Your task to perform on an android device: turn off improve location accuracy Image 0: 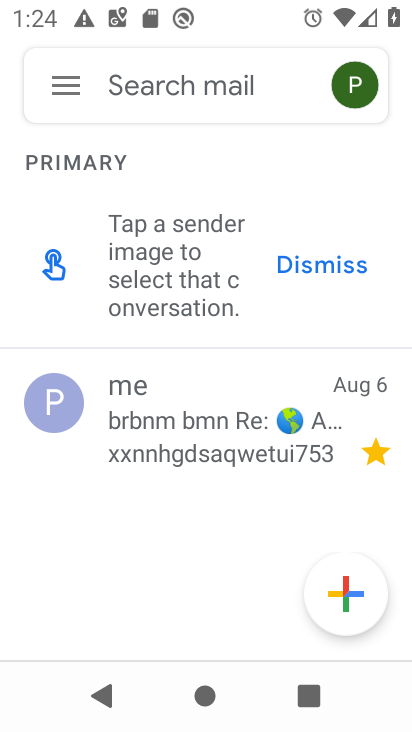
Step 0: press back button
Your task to perform on an android device: turn off improve location accuracy Image 1: 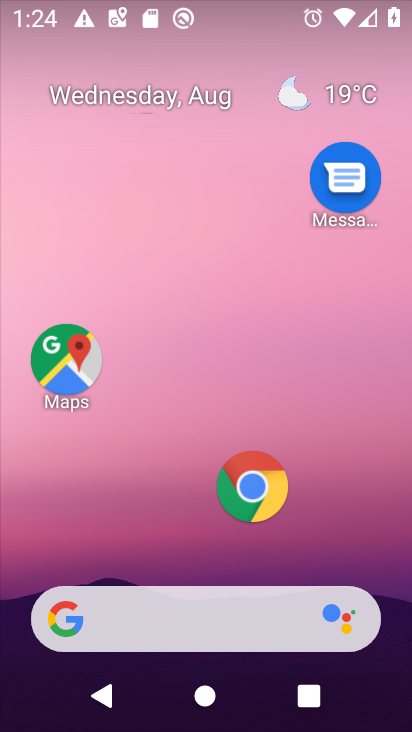
Step 1: drag from (114, 541) to (158, 25)
Your task to perform on an android device: turn off improve location accuracy Image 2: 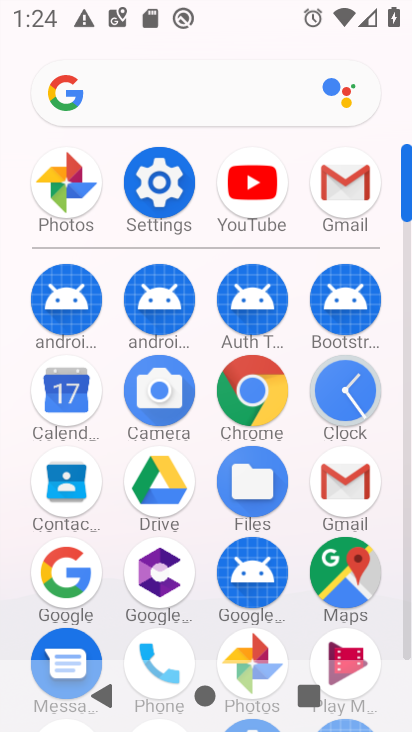
Step 2: click (172, 178)
Your task to perform on an android device: turn off improve location accuracy Image 3: 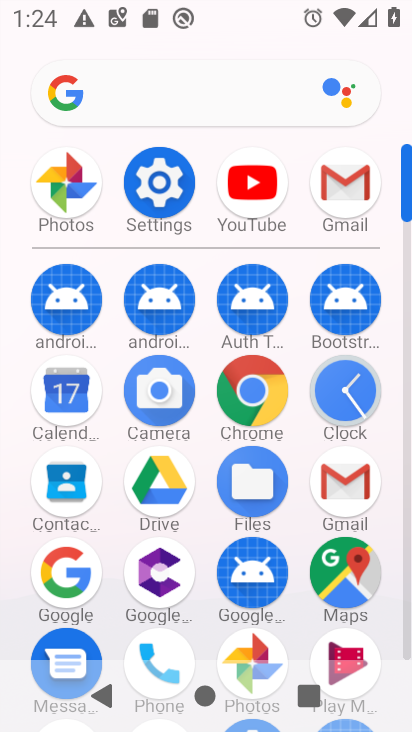
Step 3: click (166, 199)
Your task to perform on an android device: turn off improve location accuracy Image 4: 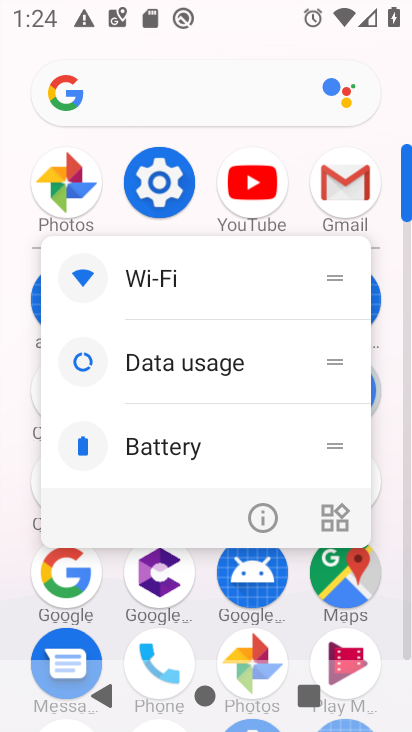
Step 4: click (160, 181)
Your task to perform on an android device: turn off improve location accuracy Image 5: 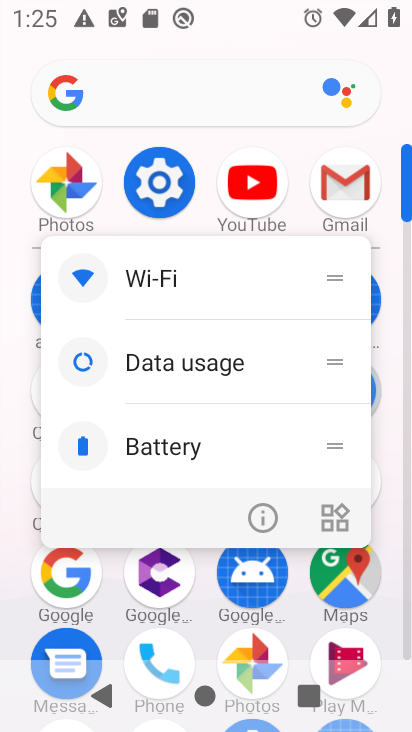
Step 5: click (168, 165)
Your task to perform on an android device: turn off improve location accuracy Image 6: 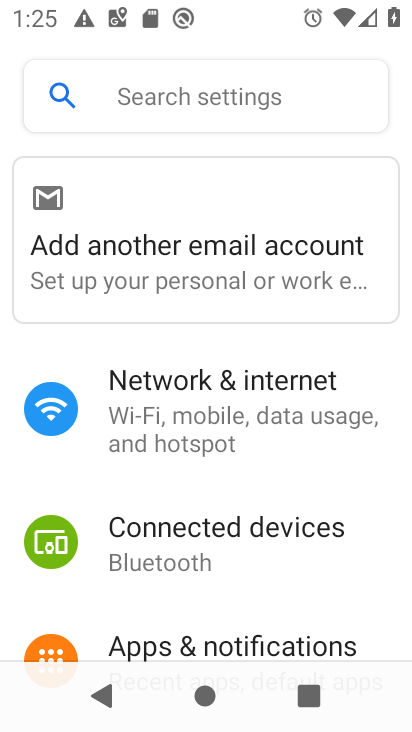
Step 6: drag from (198, 585) to (306, 134)
Your task to perform on an android device: turn off improve location accuracy Image 7: 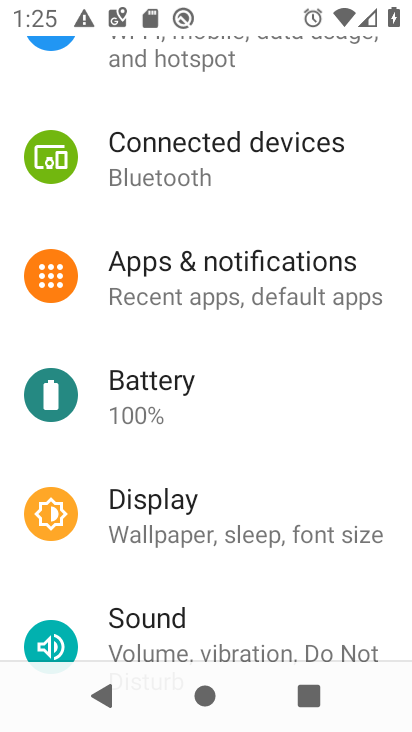
Step 7: drag from (204, 594) to (295, 106)
Your task to perform on an android device: turn off improve location accuracy Image 8: 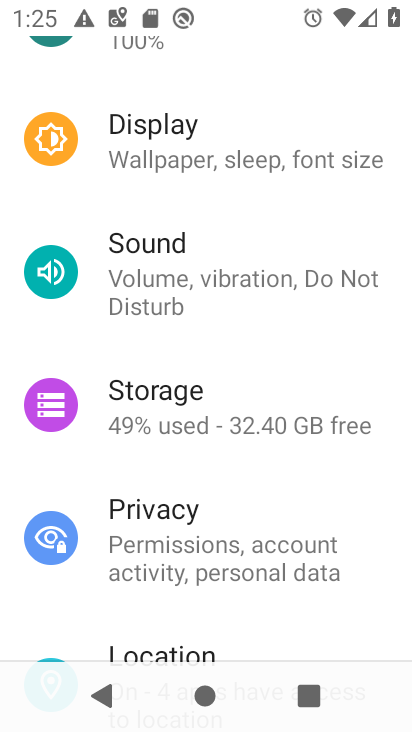
Step 8: click (151, 652)
Your task to perform on an android device: turn off improve location accuracy Image 9: 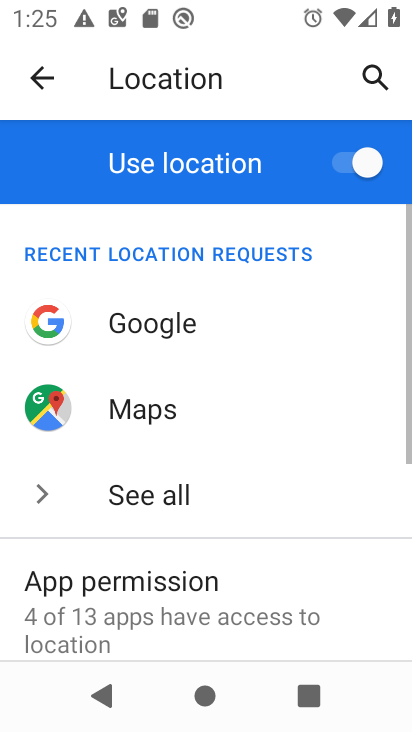
Step 9: drag from (156, 597) to (234, 102)
Your task to perform on an android device: turn off improve location accuracy Image 10: 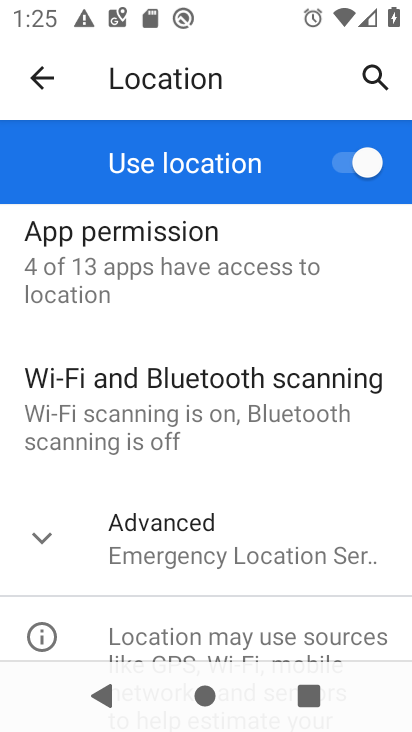
Step 10: click (231, 561)
Your task to perform on an android device: turn off improve location accuracy Image 11: 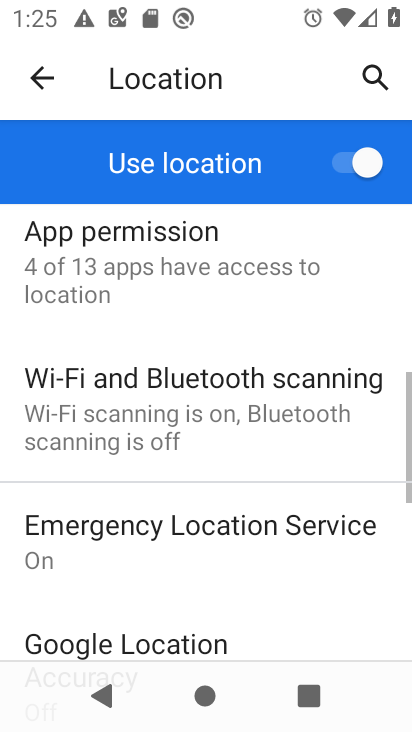
Step 11: drag from (210, 596) to (314, 113)
Your task to perform on an android device: turn off improve location accuracy Image 12: 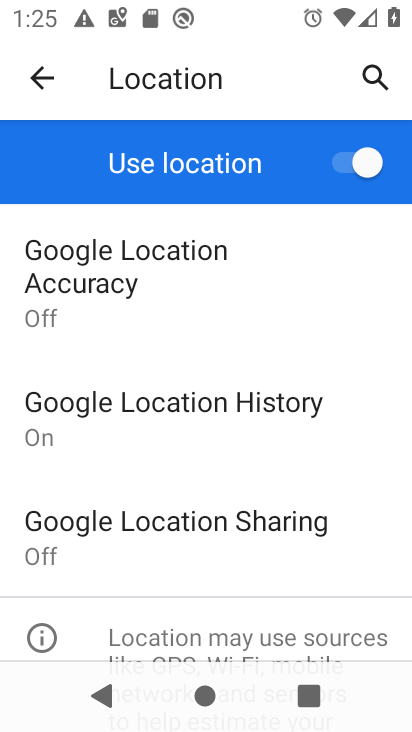
Step 12: click (123, 264)
Your task to perform on an android device: turn off improve location accuracy Image 13: 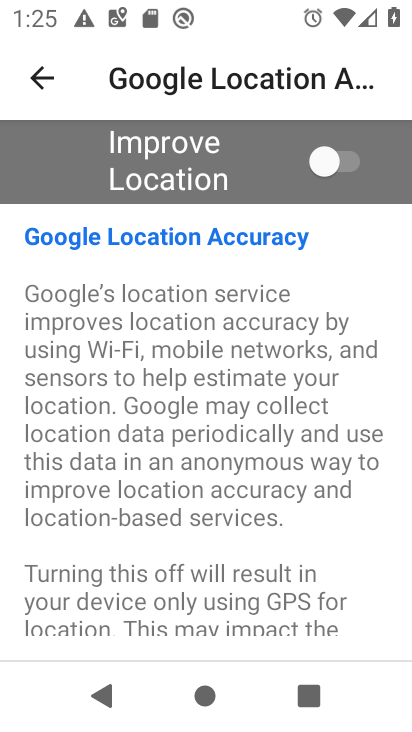
Step 13: task complete